Your task to perform on an android device: toggle wifi Image 0: 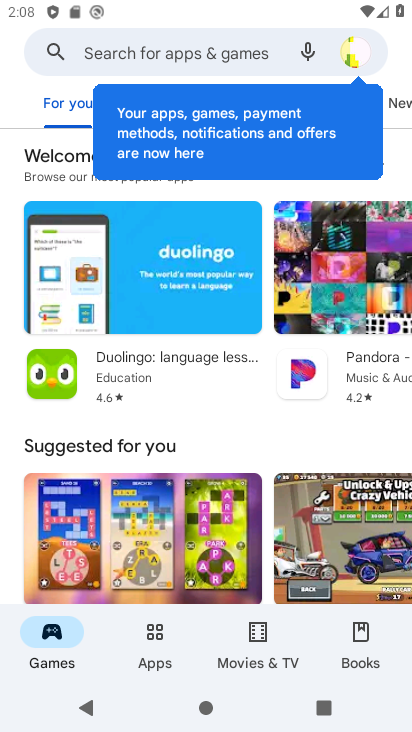
Step 0: press home button
Your task to perform on an android device: toggle wifi Image 1: 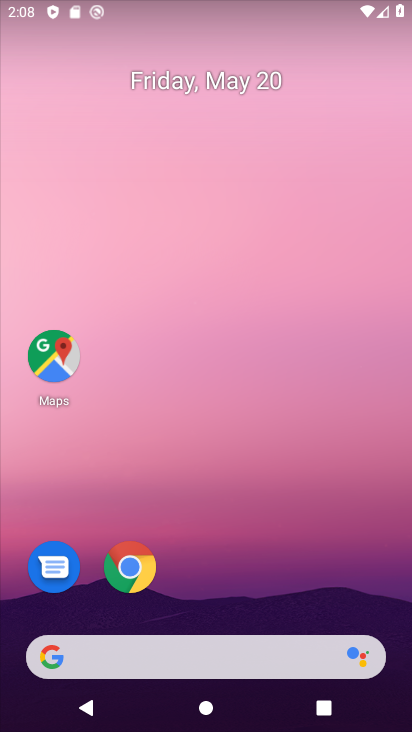
Step 1: drag from (256, 578) to (250, 73)
Your task to perform on an android device: toggle wifi Image 2: 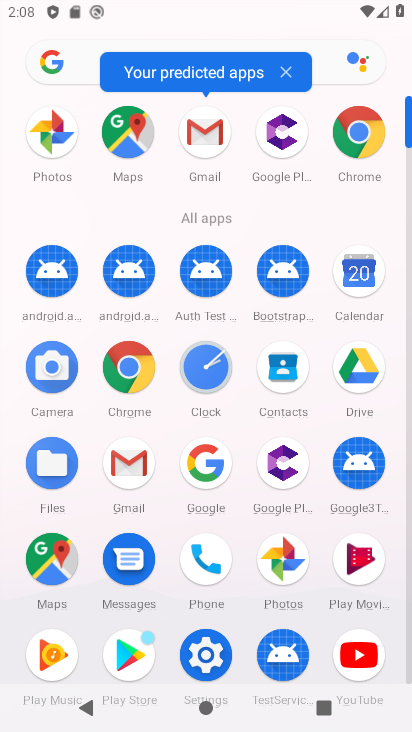
Step 2: click (195, 652)
Your task to perform on an android device: toggle wifi Image 3: 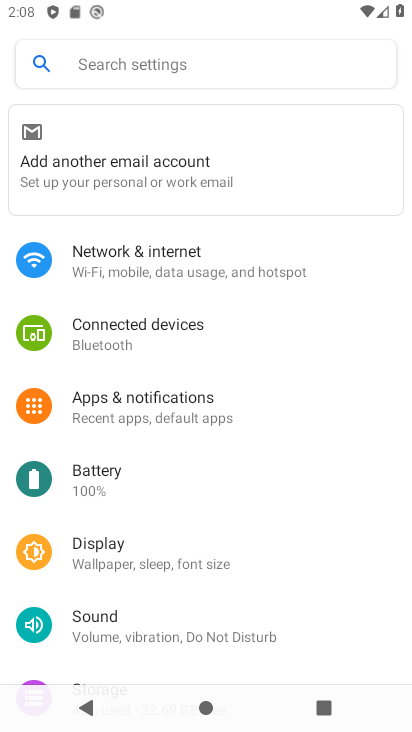
Step 3: click (165, 271)
Your task to perform on an android device: toggle wifi Image 4: 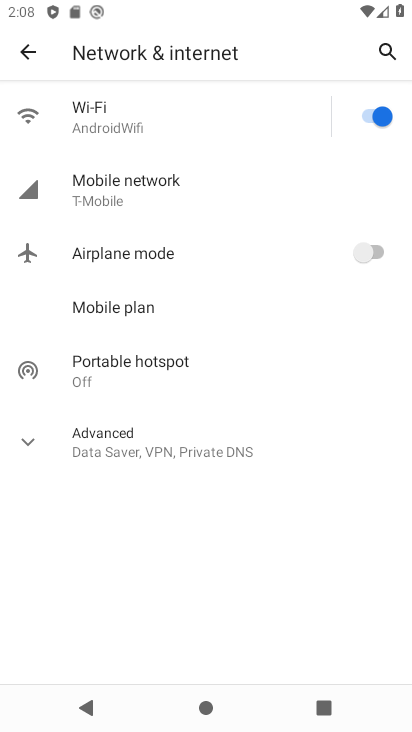
Step 4: click (151, 135)
Your task to perform on an android device: toggle wifi Image 5: 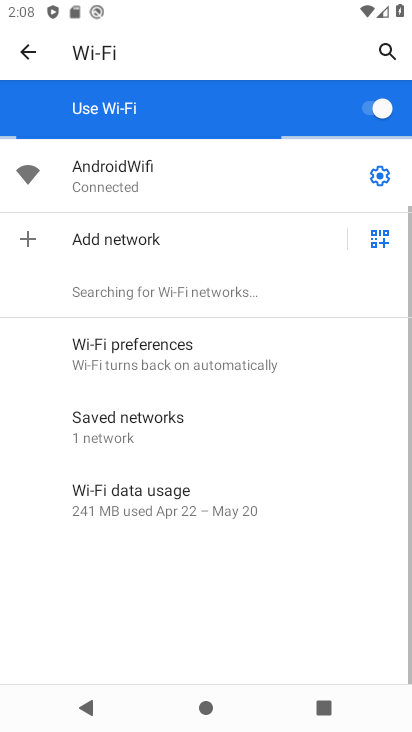
Step 5: click (380, 109)
Your task to perform on an android device: toggle wifi Image 6: 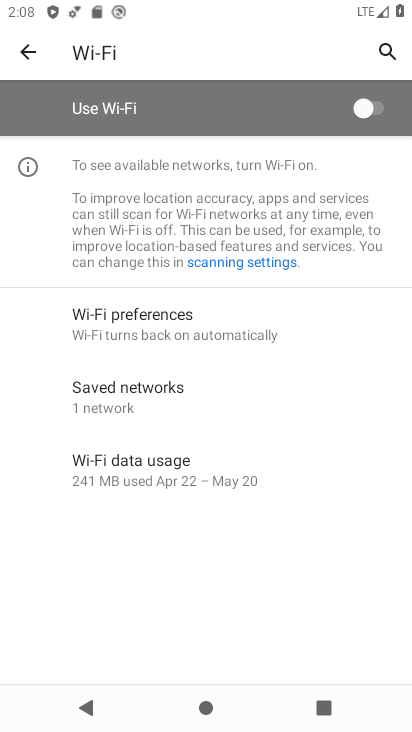
Step 6: task complete